Your task to perform on an android device: Go to Amazon Image 0: 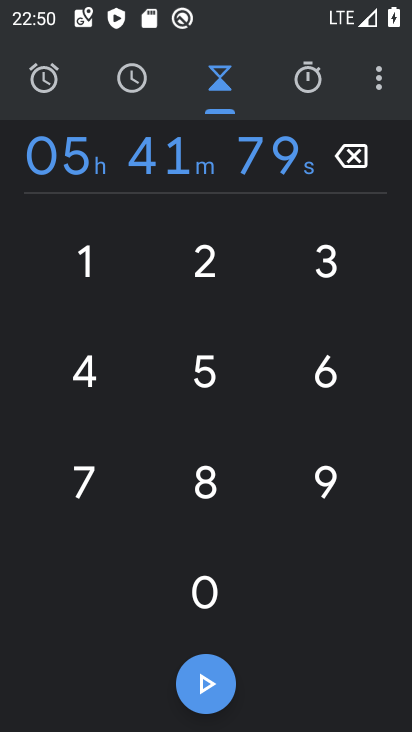
Step 0: press home button
Your task to perform on an android device: Go to Amazon Image 1: 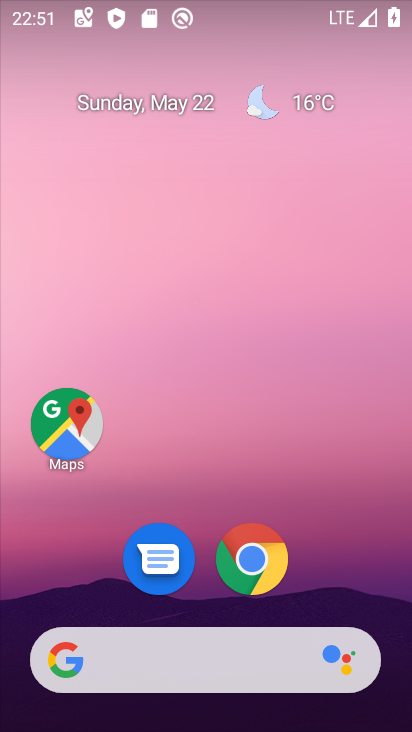
Step 1: drag from (259, 715) to (253, 143)
Your task to perform on an android device: Go to Amazon Image 2: 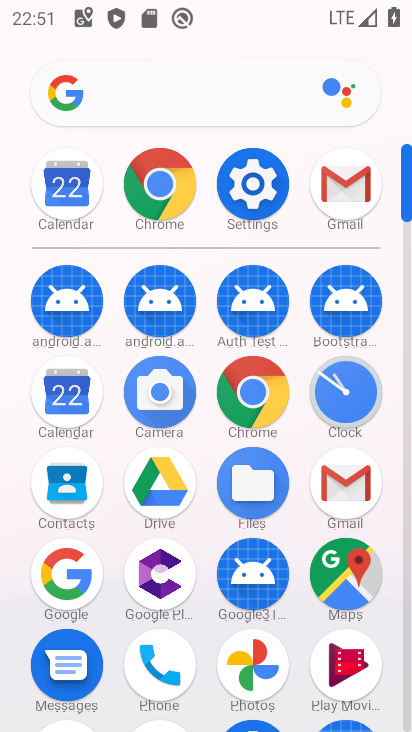
Step 2: click (135, 187)
Your task to perform on an android device: Go to Amazon Image 3: 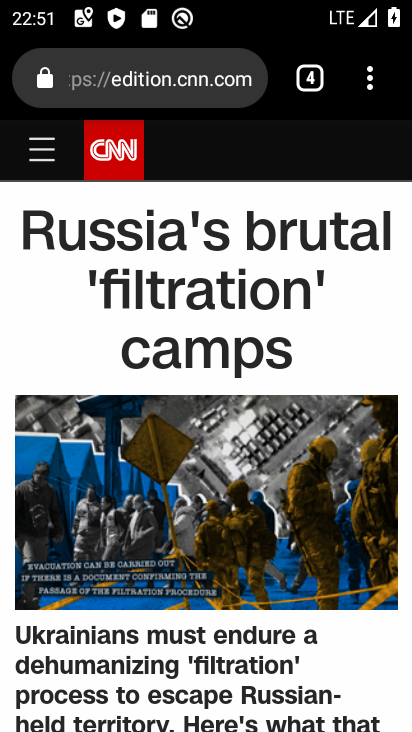
Step 3: click (362, 83)
Your task to perform on an android device: Go to Amazon Image 4: 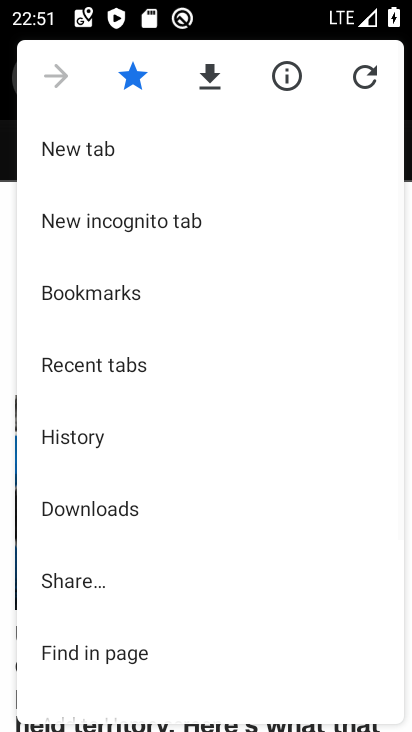
Step 4: click (106, 149)
Your task to perform on an android device: Go to Amazon Image 5: 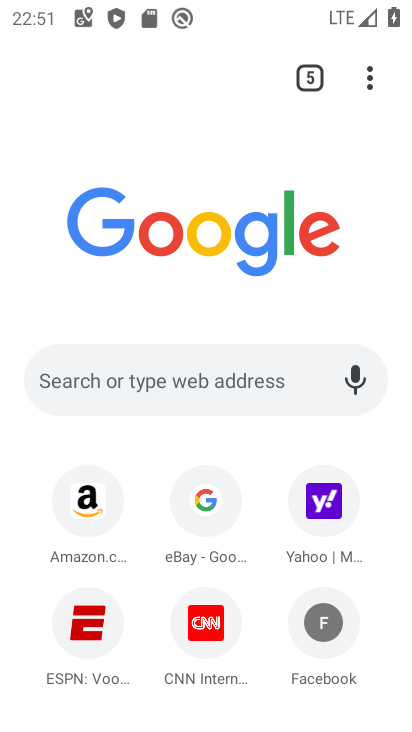
Step 5: click (113, 515)
Your task to perform on an android device: Go to Amazon Image 6: 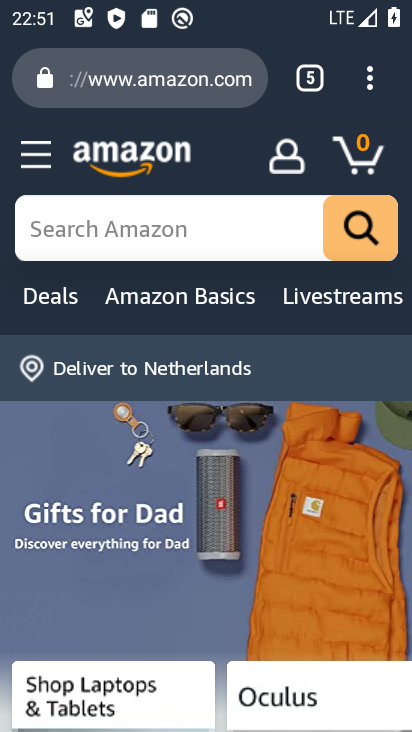
Step 6: task complete